Your task to perform on an android device: uninstall "WhatsApp Messenger" Image 0: 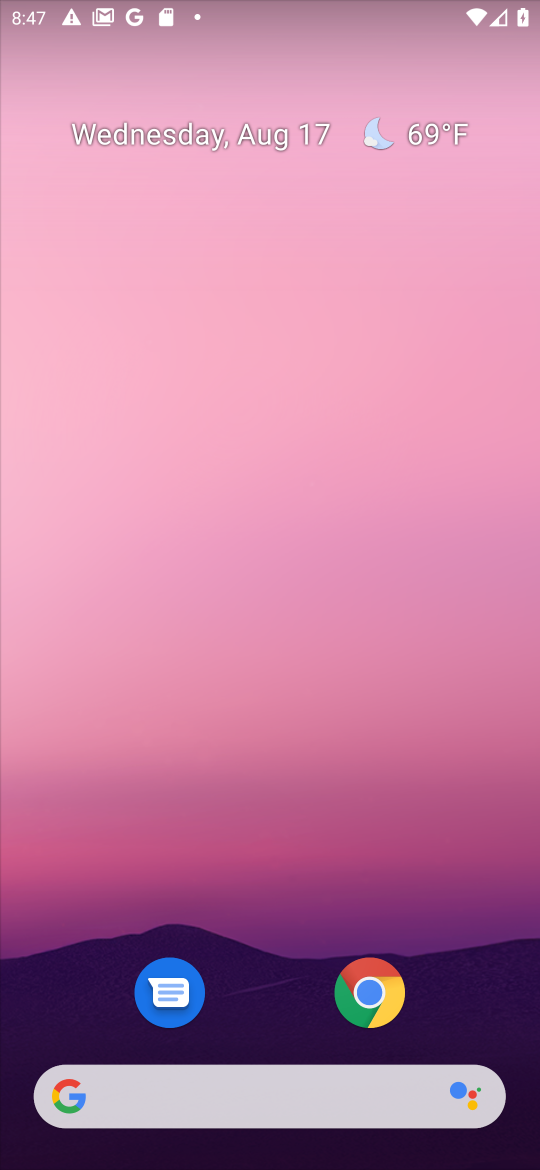
Step 0: drag from (521, 1003) to (98, 71)
Your task to perform on an android device: uninstall "WhatsApp Messenger" Image 1: 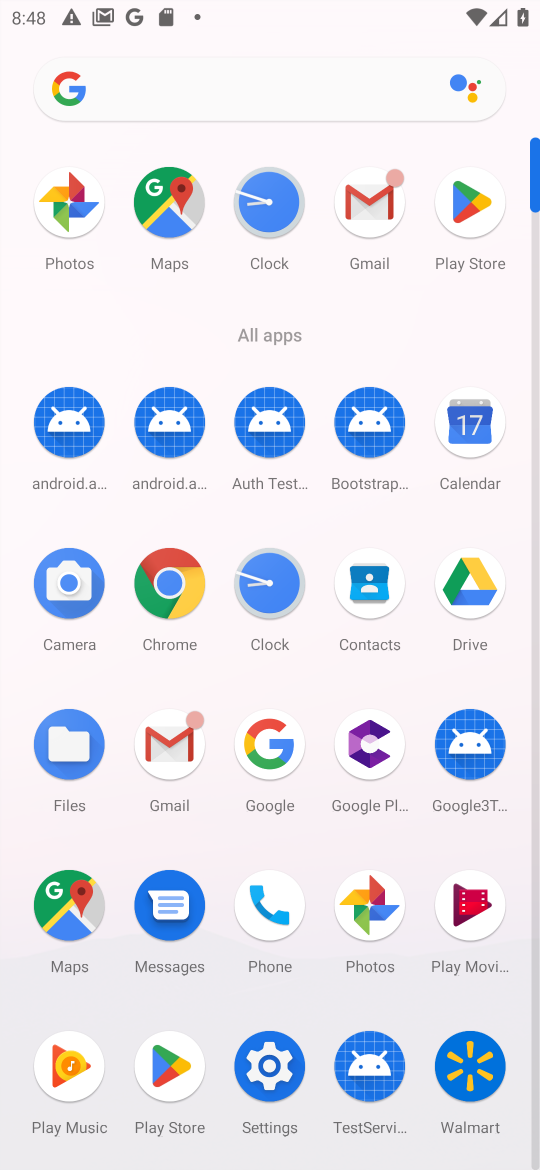
Step 1: click (157, 1073)
Your task to perform on an android device: uninstall "WhatsApp Messenger" Image 2: 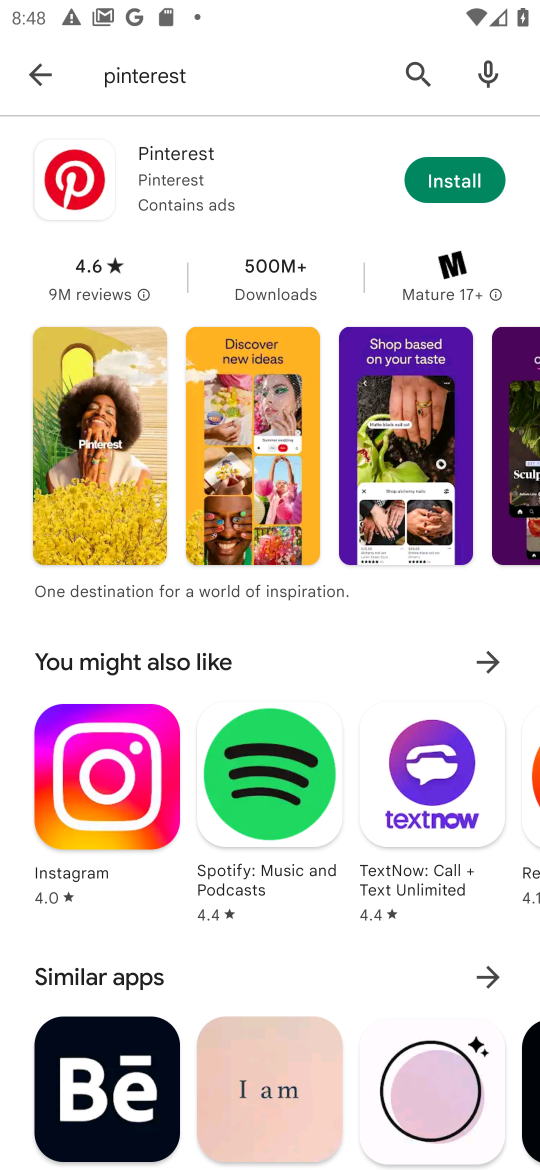
Step 2: press back button
Your task to perform on an android device: uninstall "WhatsApp Messenger" Image 3: 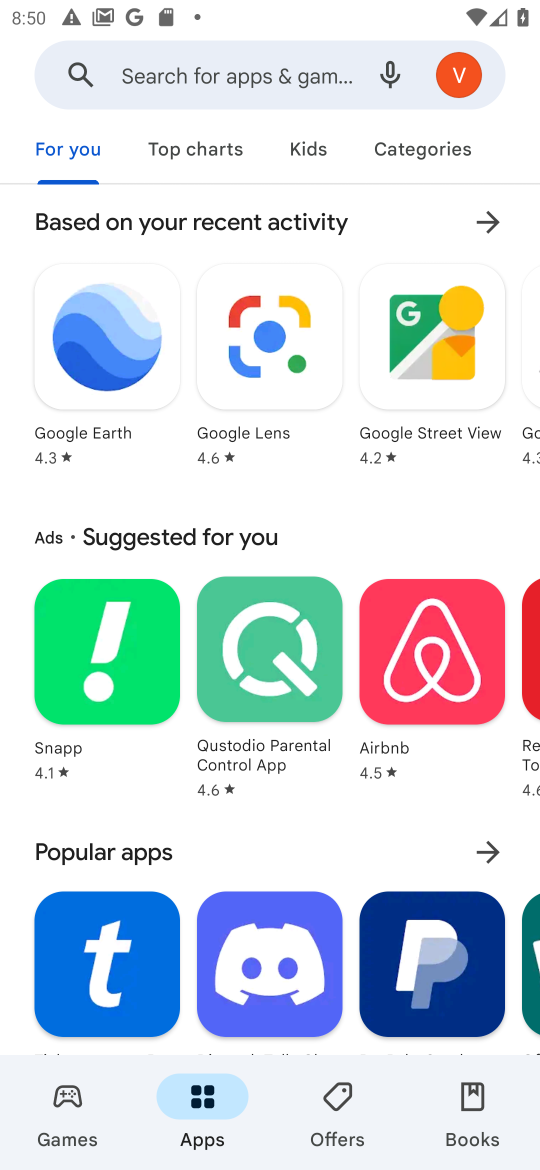
Step 3: click (181, 84)
Your task to perform on an android device: uninstall "WhatsApp Messenger" Image 4: 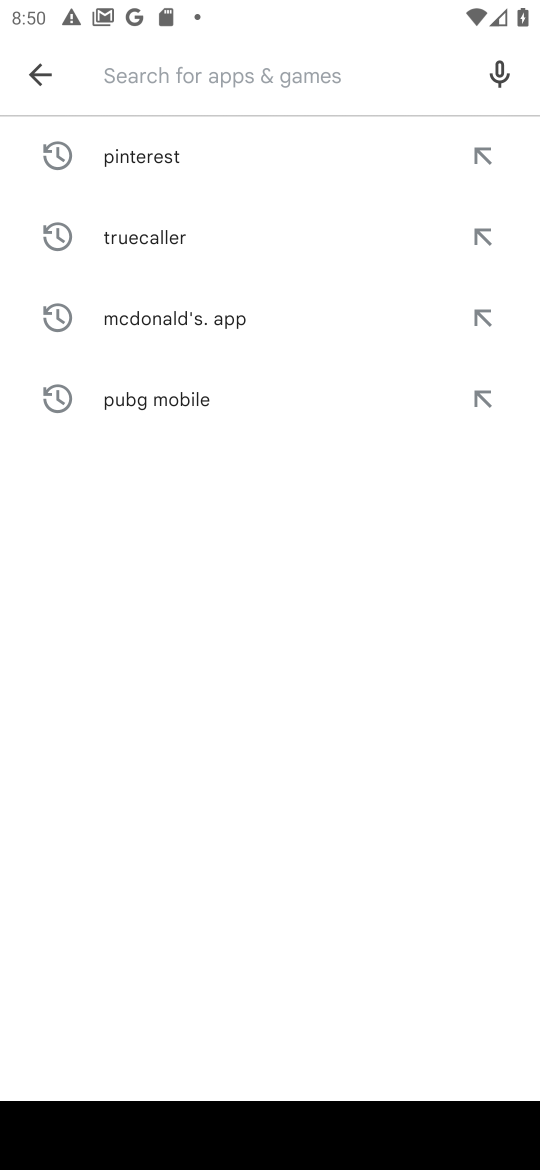
Step 4: type "WhatsApp Messenger"
Your task to perform on an android device: uninstall "WhatsApp Messenger" Image 5: 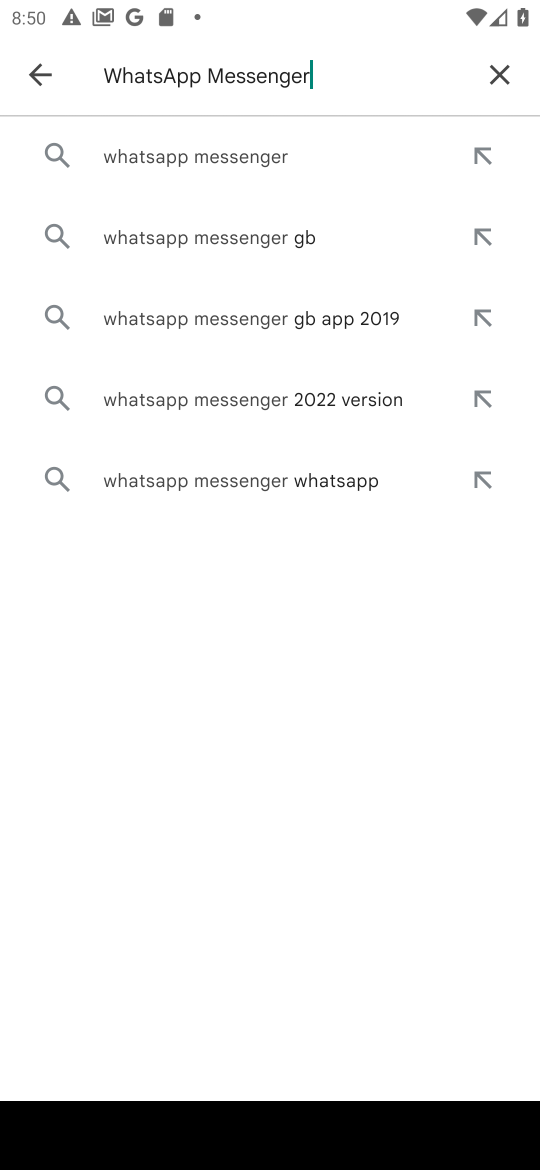
Step 5: click (230, 172)
Your task to perform on an android device: uninstall "WhatsApp Messenger" Image 6: 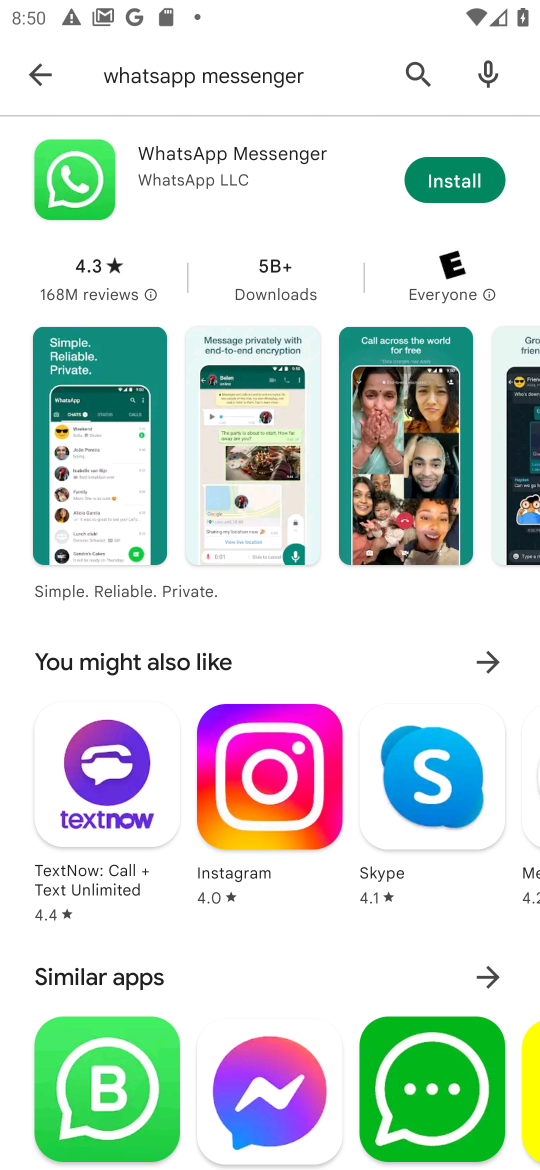
Step 6: task complete